Your task to perform on an android device: Set the phone to "Do not disturb". Image 0: 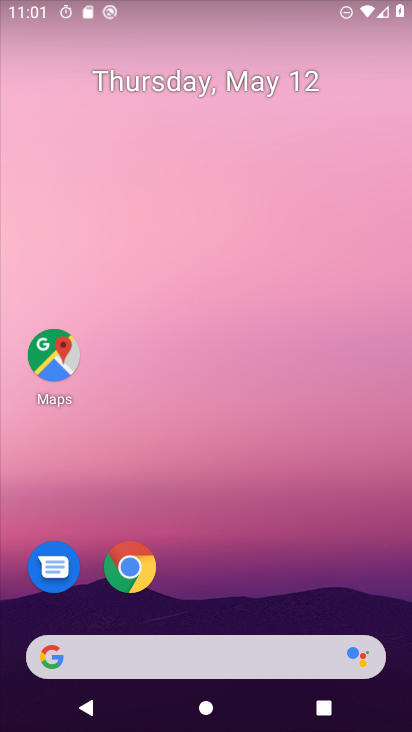
Step 0: drag from (244, 556) to (312, 150)
Your task to perform on an android device: Set the phone to "Do not disturb". Image 1: 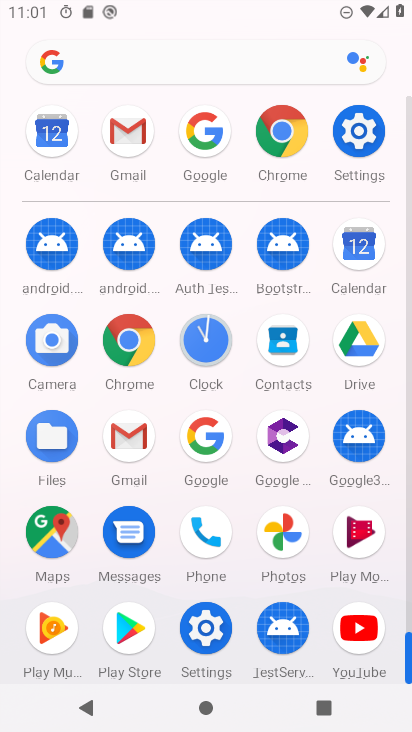
Step 1: task complete